Your task to perform on an android device: Go to Wikipedia Image 0: 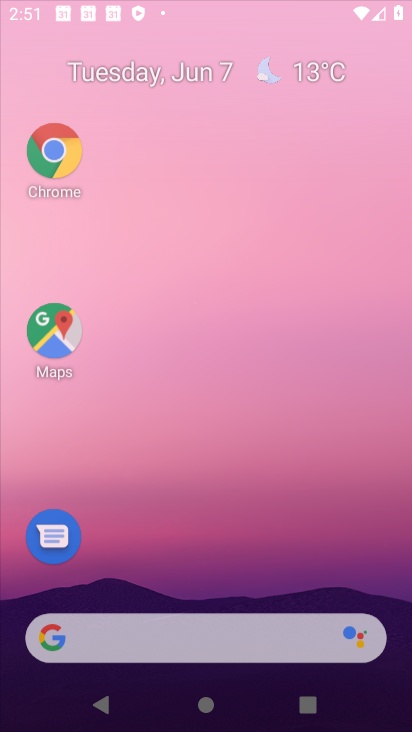
Step 0: drag from (264, 12) to (318, 16)
Your task to perform on an android device: Go to Wikipedia Image 1: 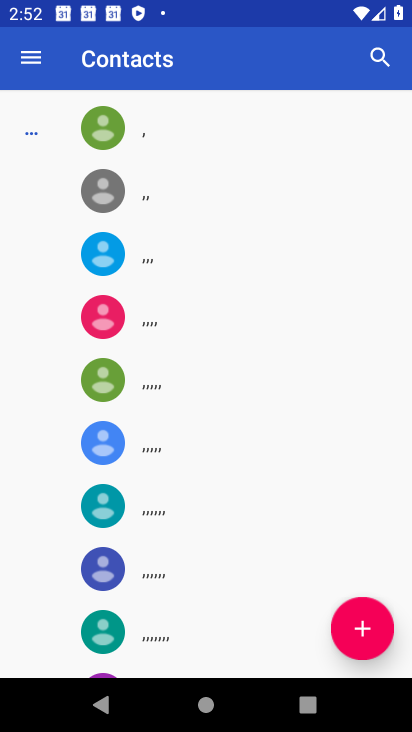
Step 1: press home button
Your task to perform on an android device: Go to Wikipedia Image 2: 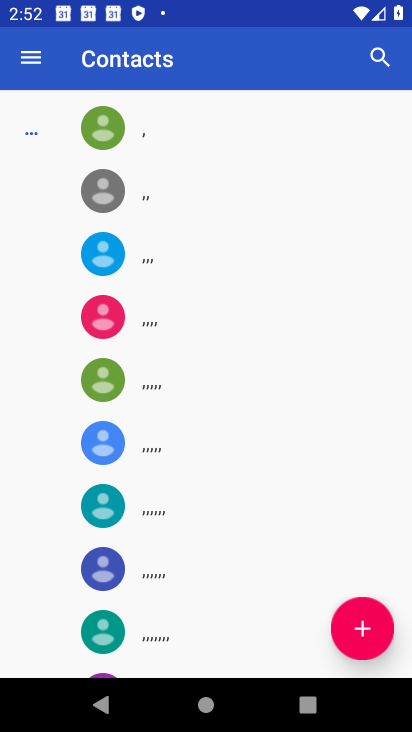
Step 2: press home button
Your task to perform on an android device: Go to Wikipedia Image 3: 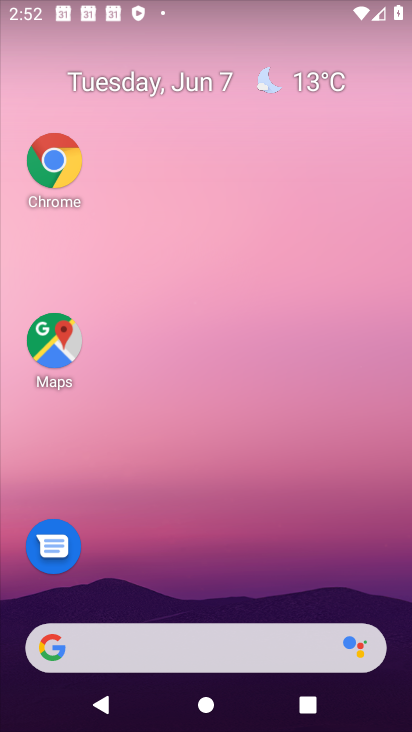
Step 3: drag from (207, 597) to (171, 31)
Your task to perform on an android device: Go to Wikipedia Image 4: 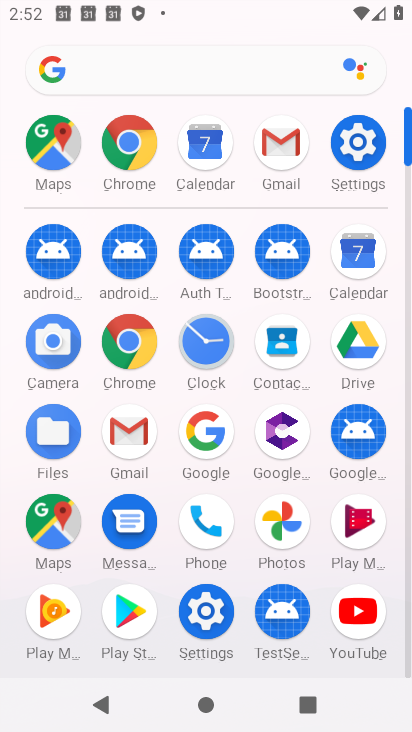
Step 4: drag from (175, 581) to (188, 174)
Your task to perform on an android device: Go to Wikipedia Image 5: 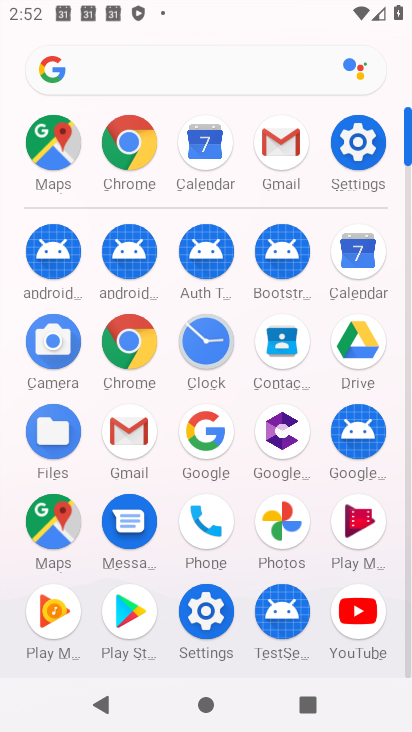
Step 5: click (235, 80)
Your task to perform on an android device: Go to Wikipedia Image 6: 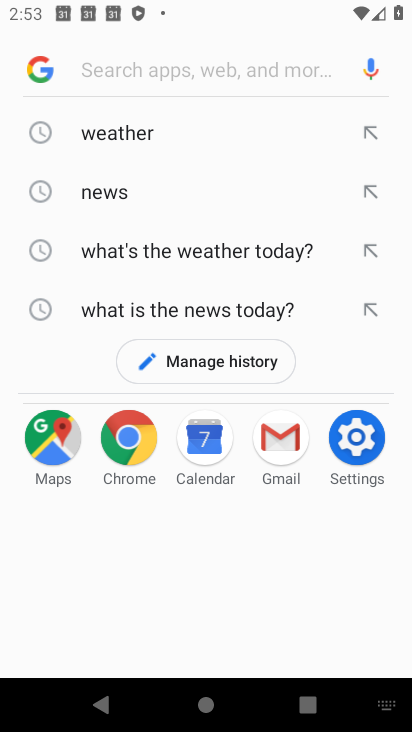
Step 6: type "Wikipedia"
Your task to perform on an android device: Go to Wikipedia Image 7: 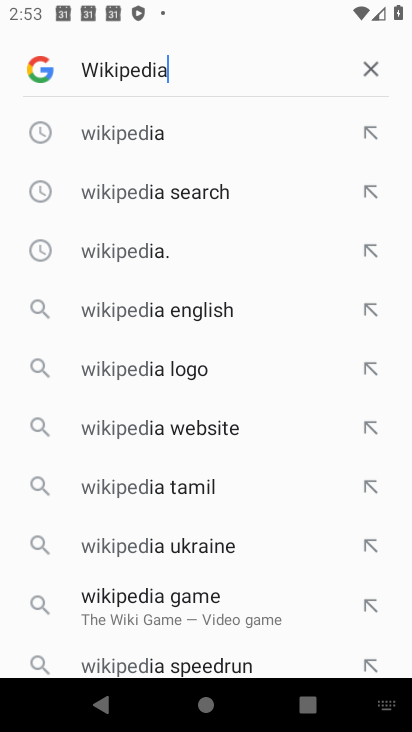
Step 7: type ""
Your task to perform on an android device: Go to Wikipedia Image 8: 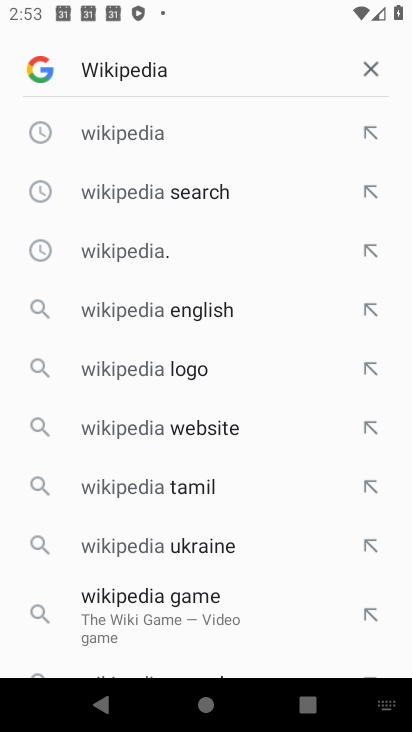
Step 8: click (126, 127)
Your task to perform on an android device: Go to Wikipedia Image 9: 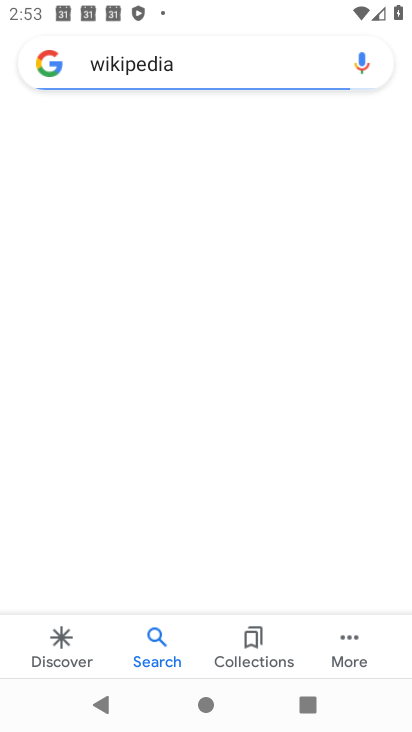
Step 9: drag from (167, 525) to (232, 164)
Your task to perform on an android device: Go to Wikipedia Image 10: 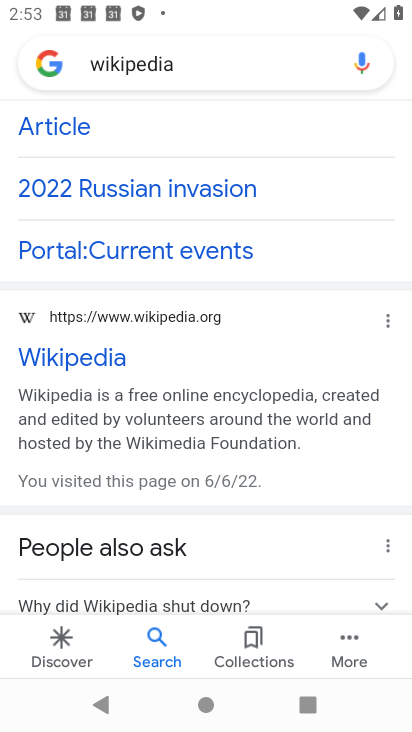
Step 10: drag from (169, 269) to (306, 665)
Your task to perform on an android device: Go to Wikipedia Image 11: 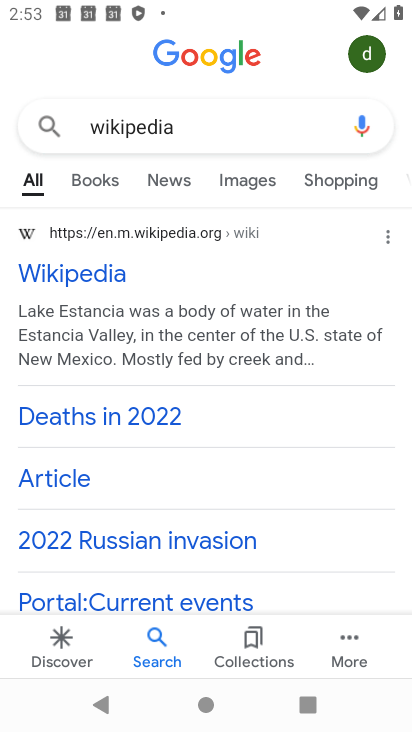
Step 11: click (48, 264)
Your task to perform on an android device: Go to Wikipedia Image 12: 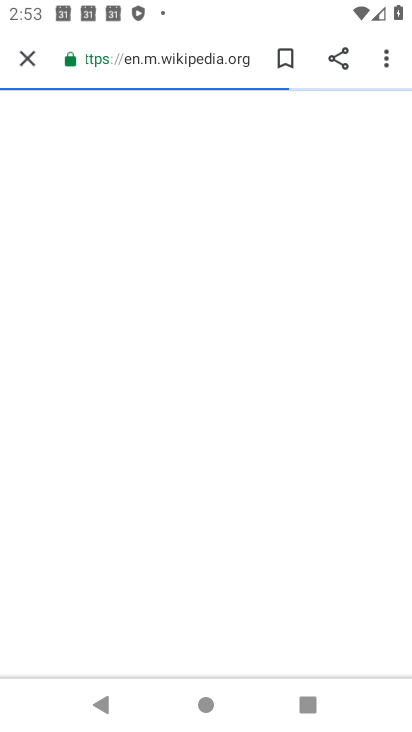
Step 12: task complete